Your task to perform on an android device: Open calendar and show me the first week of next month Image 0: 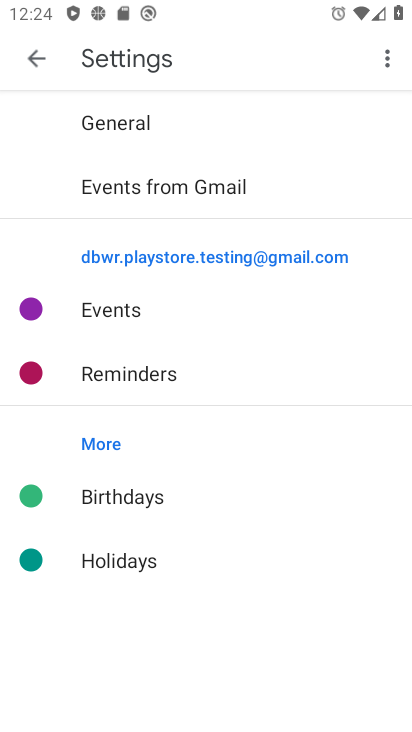
Step 0: press home button
Your task to perform on an android device: Open calendar and show me the first week of next month Image 1: 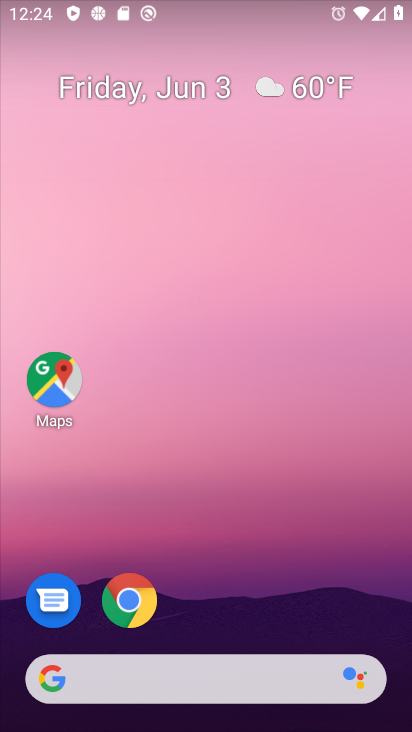
Step 1: drag from (314, 576) to (253, 247)
Your task to perform on an android device: Open calendar and show me the first week of next month Image 2: 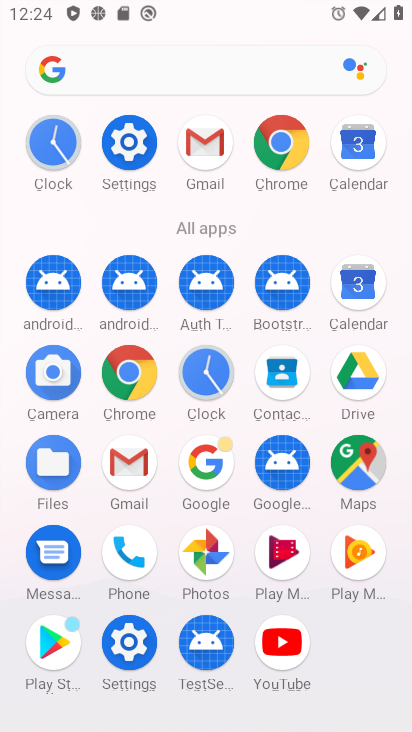
Step 2: click (368, 147)
Your task to perform on an android device: Open calendar and show me the first week of next month Image 3: 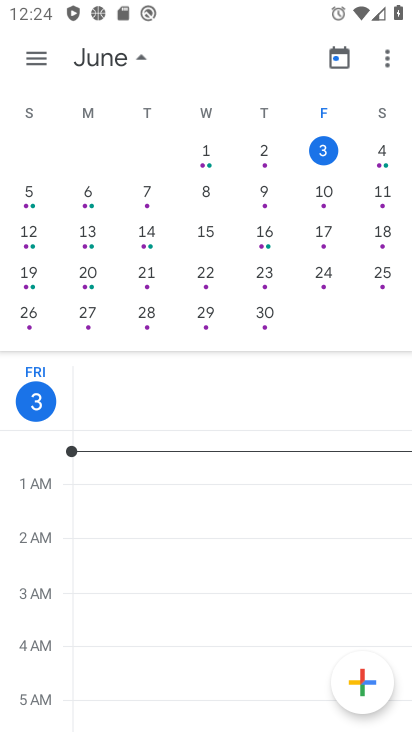
Step 3: drag from (344, 195) to (84, 205)
Your task to perform on an android device: Open calendar and show me the first week of next month Image 4: 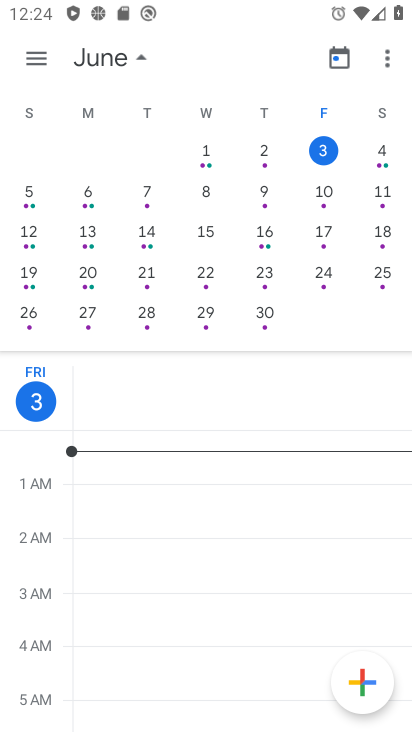
Step 4: drag from (375, 243) to (14, 227)
Your task to perform on an android device: Open calendar and show me the first week of next month Image 5: 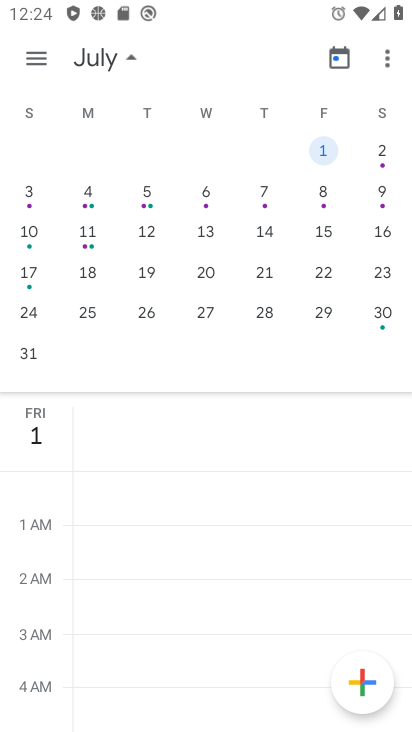
Step 5: click (34, 195)
Your task to perform on an android device: Open calendar and show me the first week of next month Image 6: 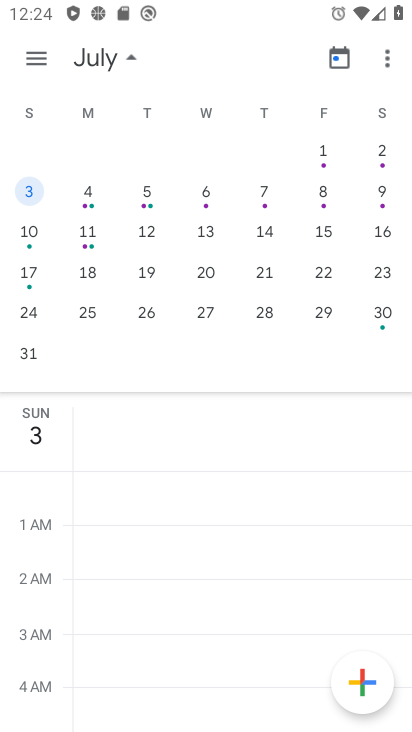
Step 6: click (41, 48)
Your task to perform on an android device: Open calendar and show me the first week of next month Image 7: 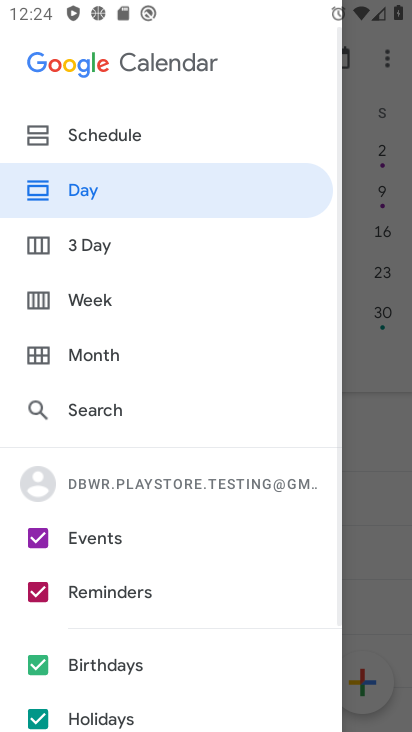
Step 7: click (112, 298)
Your task to perform on an android device: Open calendar and show me the first week of next month Image 8: 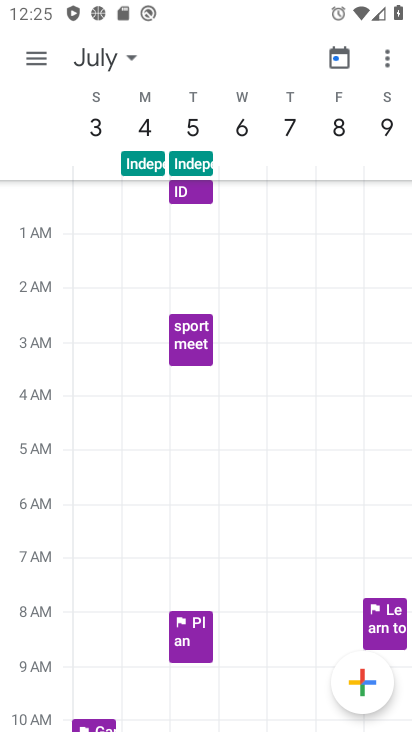
Step 8: task complete